Your task to perform on an android device: Open Chrome and go to settings Image 0: 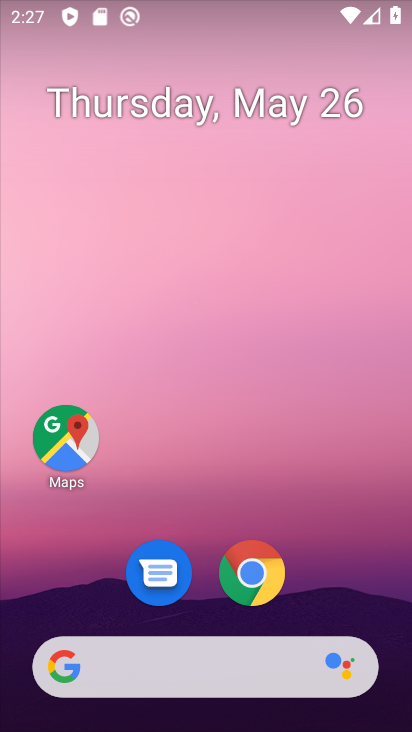
Step 0: click (250, 574)
Your task to perform on an android device: Open Chrome and go to settings Image 1: 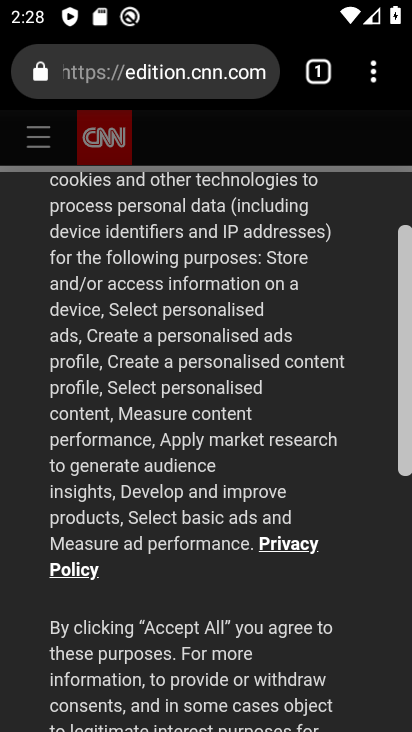
Step 1: click (372, 71)
Your task to perform on an android device: Open Chrome and go to settings Image 2: 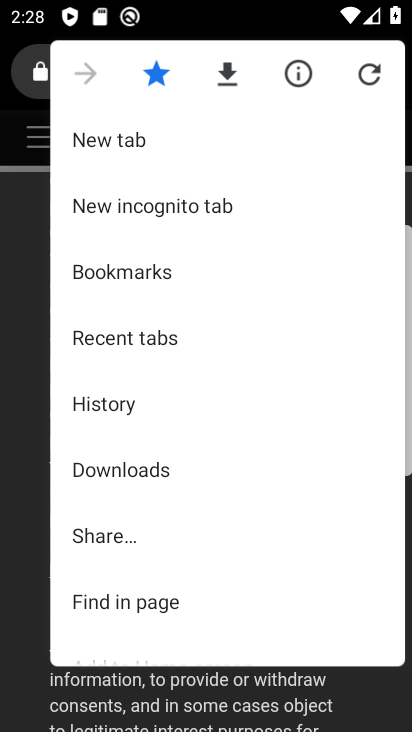
Step 2: drag from (142, 444) to (184, 361)
Your task to perform on an android device: Open Chrome and go to settings Image 3: 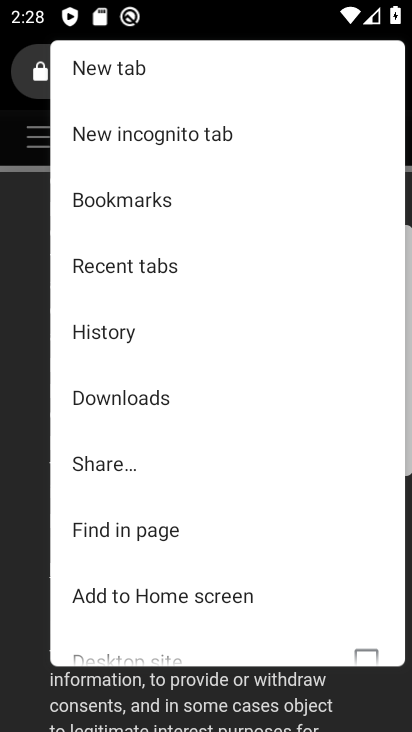
Step 3: drag from (100, 497) to (183, 394)
Your task to perform on an android device: Open Chrome and go to settings Image 4: 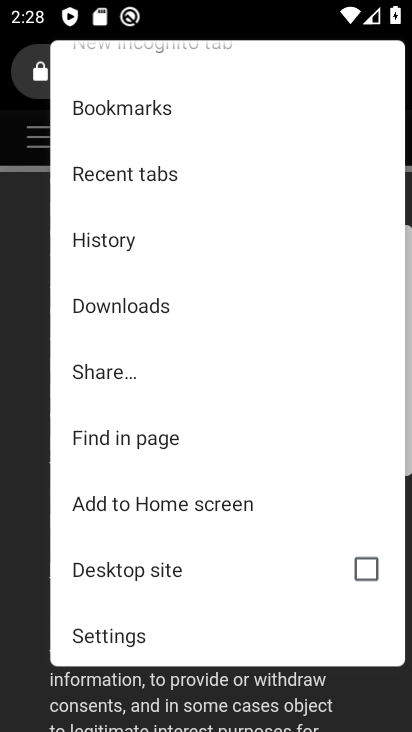
Step 4: drag from (139, 523) to (230, 424)
Your task to perform on an android device: Open Chrome and go to settings Image 5: 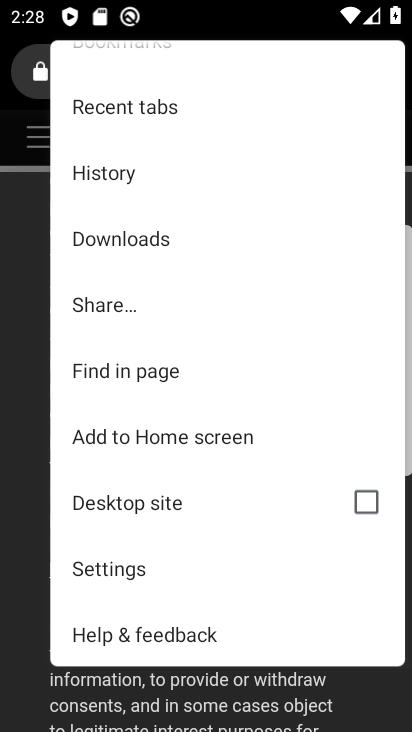
Step 5: click (111, 562)
Your task to perform on an android device: Open Chrome and go to settings Image 6: 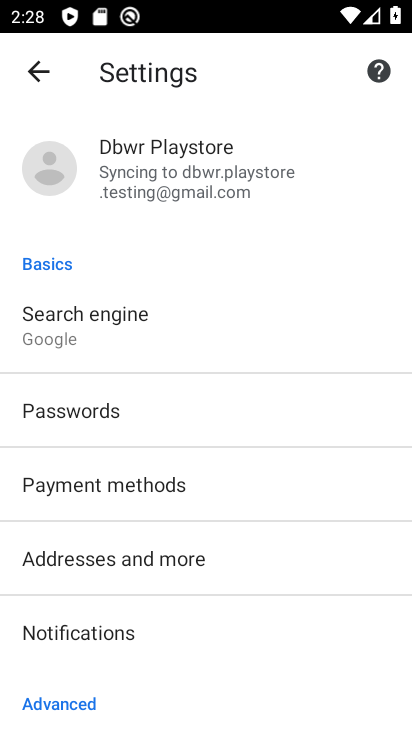
Step 6: task complete